Your task to perform on an android device: Open the web browser Image 0: 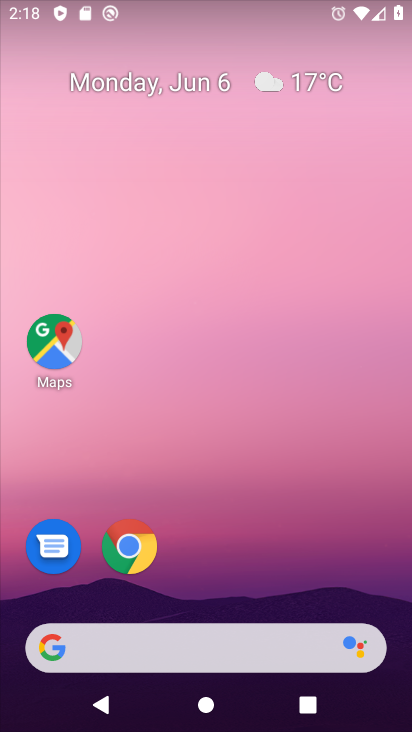
Step 0: click (114, 537)
Your task to perform on an android device: Open the web browser Image 1: 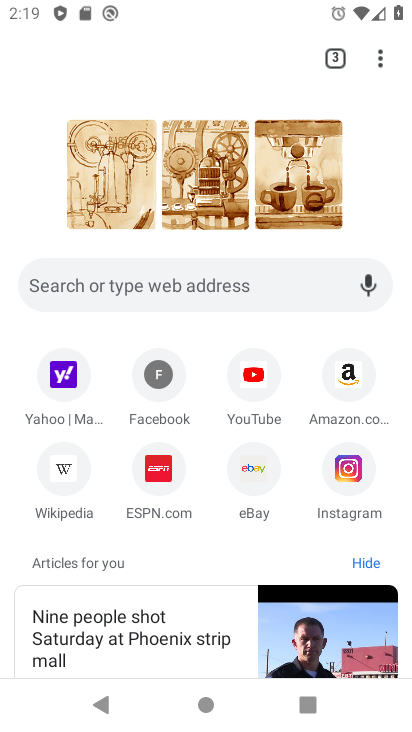
Step 1: task complete